Your task to perform on an android device: Open calendar and show me the second week of next month Image 0: 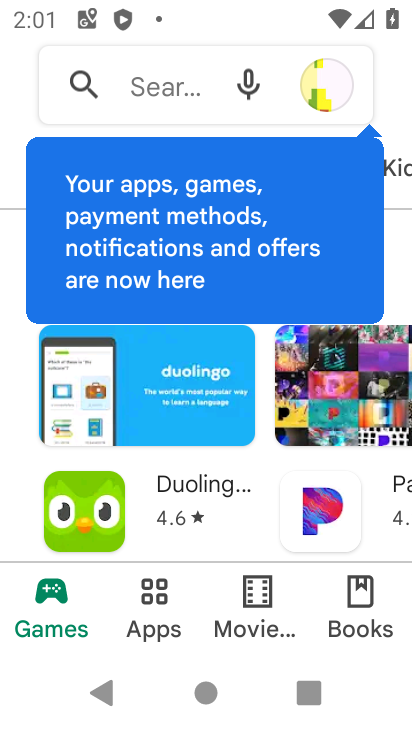
Step 0: press home button
Your task to perform on an android device: Open calendar and show me the second week of next month Image 1: 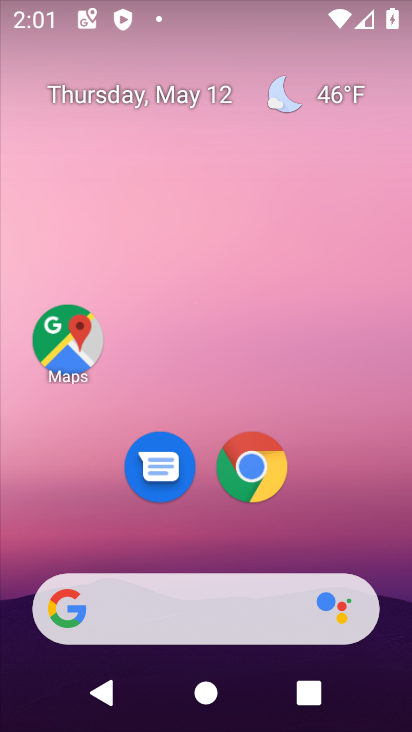
Step 1: drag from (361, 443) to (315, 128)
Your task to perform on an android device: Open calendar and show me the second week of next month Image 2: 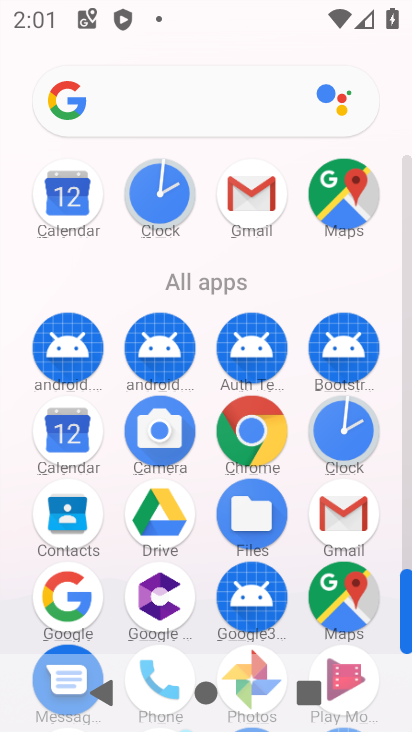
Step 2: click (69, 433)
Your task to perform on an android device: Open calendar and show me the second week of next month Image 3: 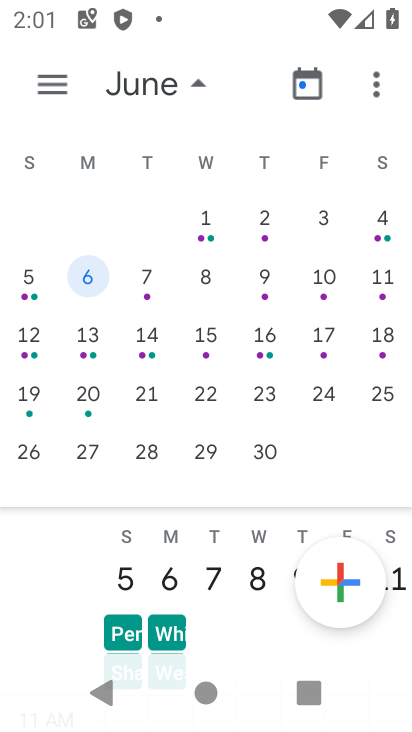
Step 3: click (83, 334)
Your task to perform on an android device: Open calendar and show me the second week of next month Image 4: 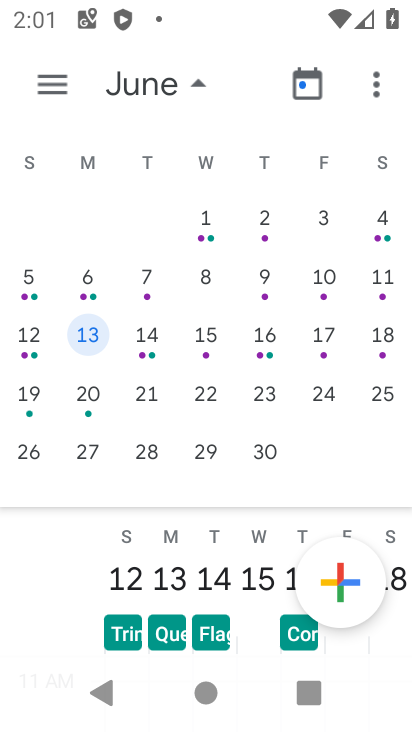
Step 4: task complete